Your task to perform on an android device: Show me productivity apps on the Play Store Image 0: 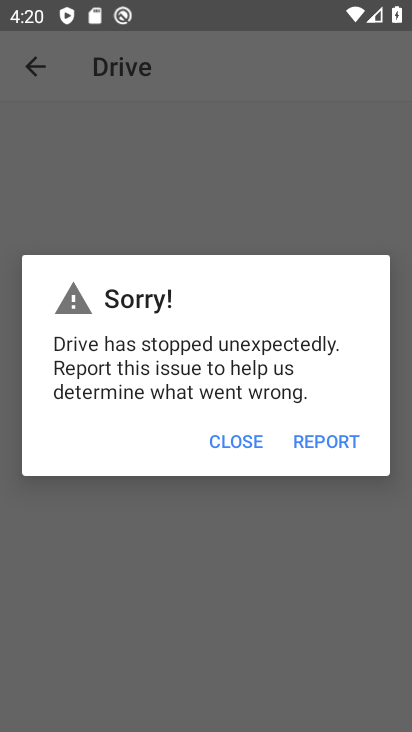
Step 0: press home button
Your task to perform on an android device: Show me productivity apps on the Play Store Image 1: 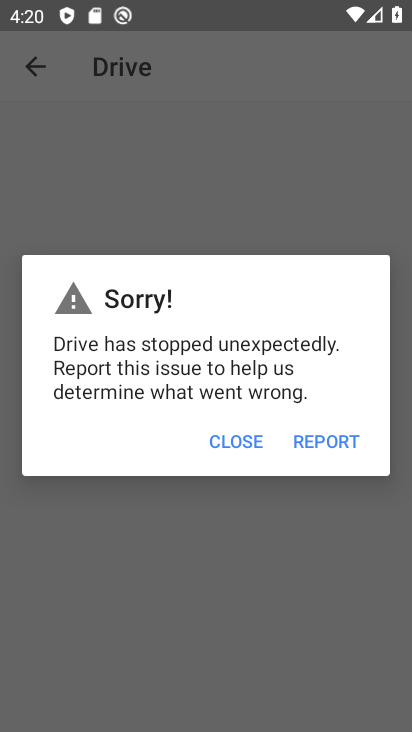
Step 1: press home button
Your task to perform on an android device: Show me productivity apps on the Play Store Image 2: 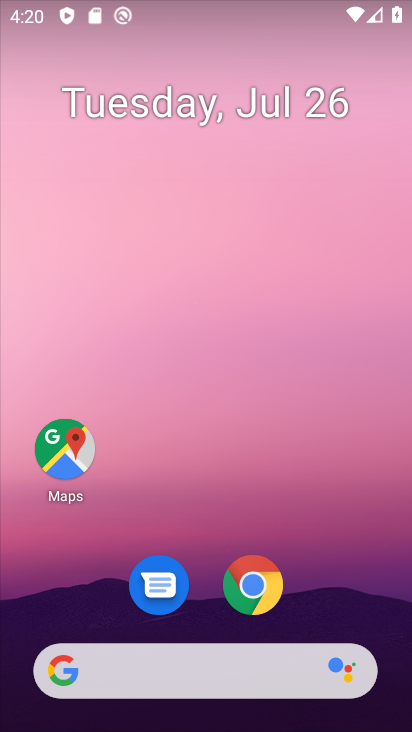
Step 2: drag from (322, 606) to (288, 28)
Your task to perform on an android device: Show me productivity apps on the Play Store Image 3: 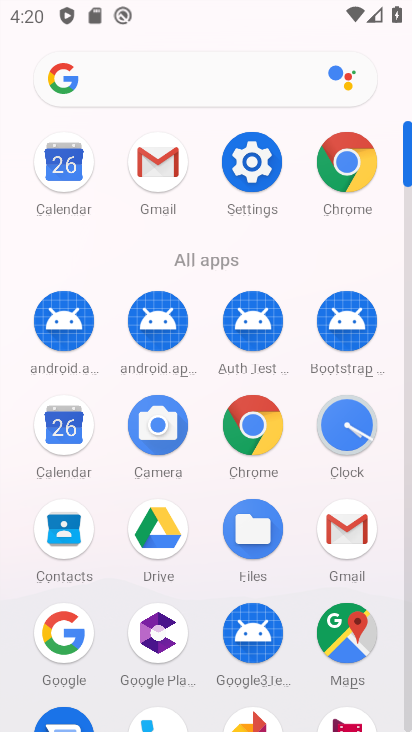
Step 3: drag from (198, 406) to (223, 190)
Your task to perform on an android device: Show me productivity apps on the Play Store Image 4: 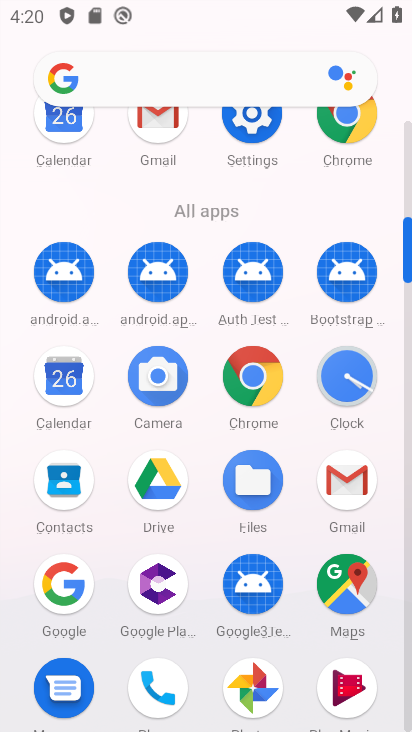
Step 4: drag from (210, 521) to (222, 205)
Your task to perform on an android device: Show me productivity apps on the Play Store Image 5: 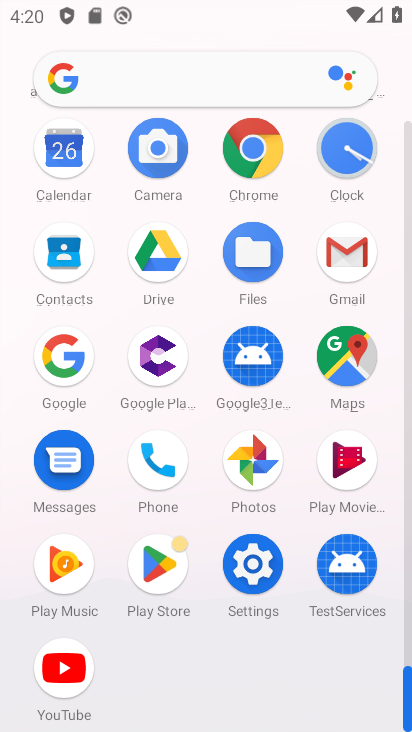
Step 5: click (177, 567)
Your task to perform on an android device: Show me productivity apps on the Play Store Image 6: 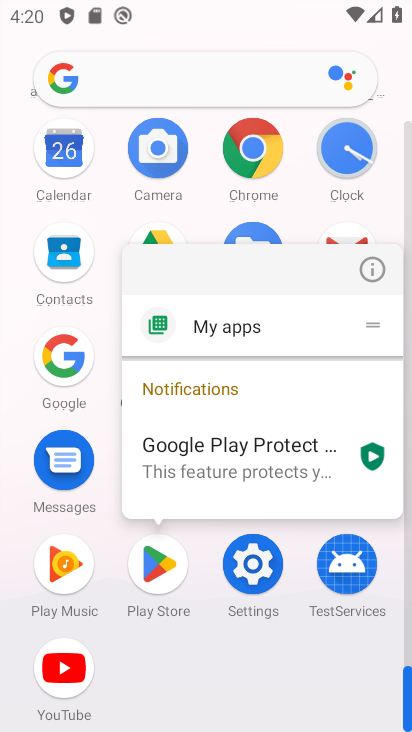
Step 6: click (175, 563)
Your task to perform on an android device: Show me productivity apps on the Play Store Image 7: 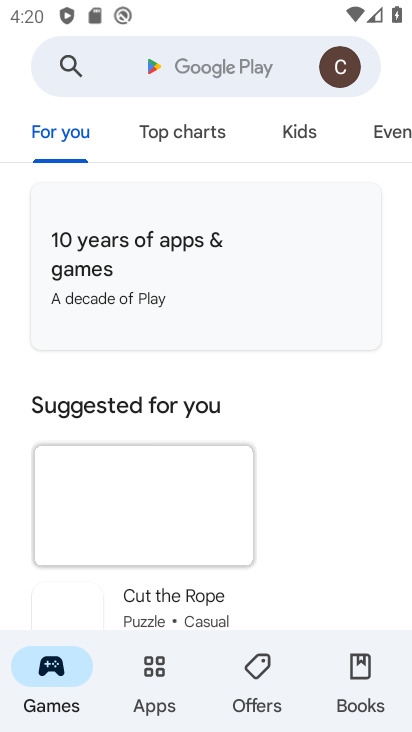
Step 7: click (165, 673)
Your task to perform on an android device: Show me productivity apps on the Play Store Image 8: 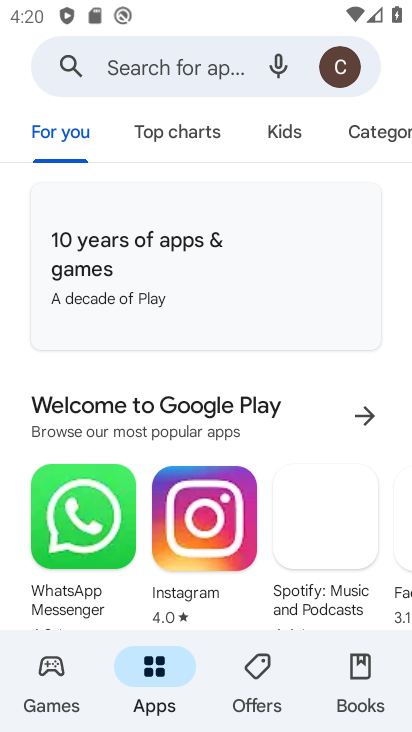
Step 8: click (387, 136)
Your task to perform on an android device: Show me productivity apps on the Play Store Image 9: 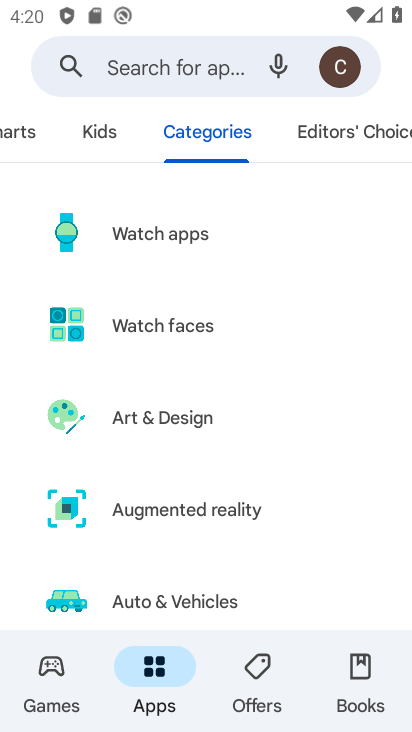
Step 9: drag from (301, 532) to (249, 119)
Your task to perform on an android device: Show me productivity apps on the Play Store Image 10: 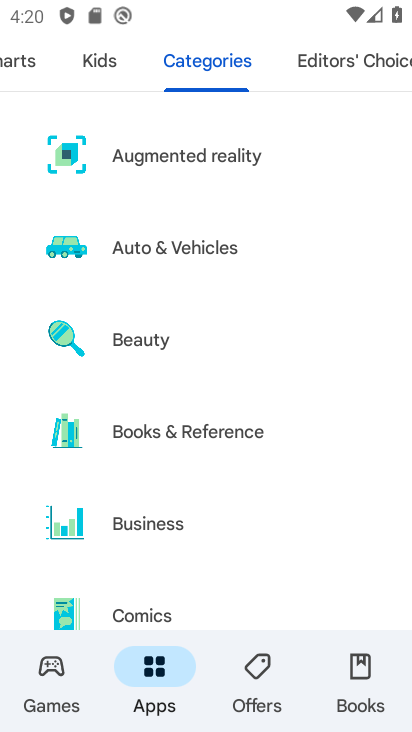
Step 10: drag from (241, 76) to (232, 6)
Your task to perform on an android device: Show me productivity apps on the Play Store Image 11: 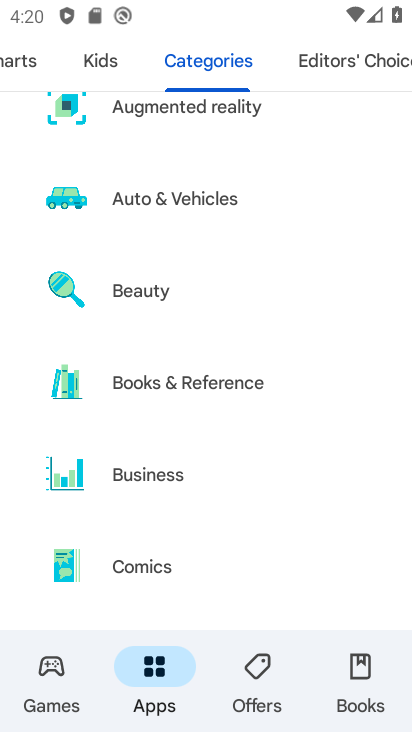
Step 11: drag from (271, 476) to (257, 0)
Your task to perform on an android device: Show me productivity apps on the Play Store Image 12: 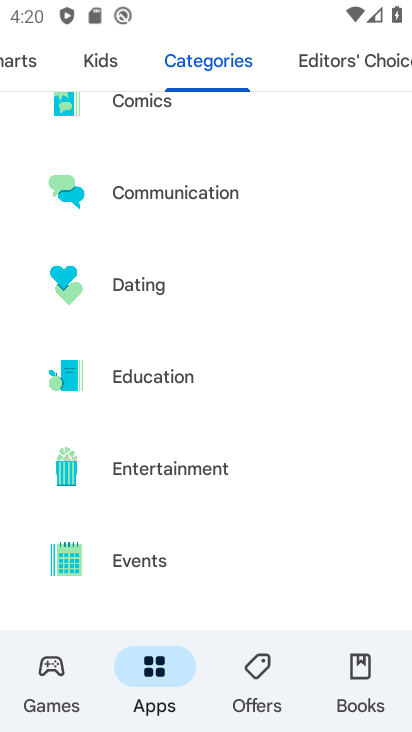
Step 12: drag from (268, 517) to (250, 74)
Your task to perform on an android device: Show me productivity apps on the Play Store Image 13: 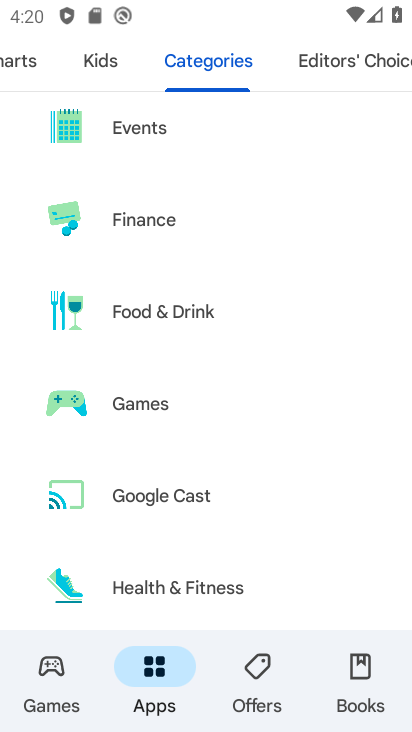
Step 13: drag from (211, 468) to (191, 231)
Your task to perform on an android device: Show me productivity apps on the Play Store Image 14: 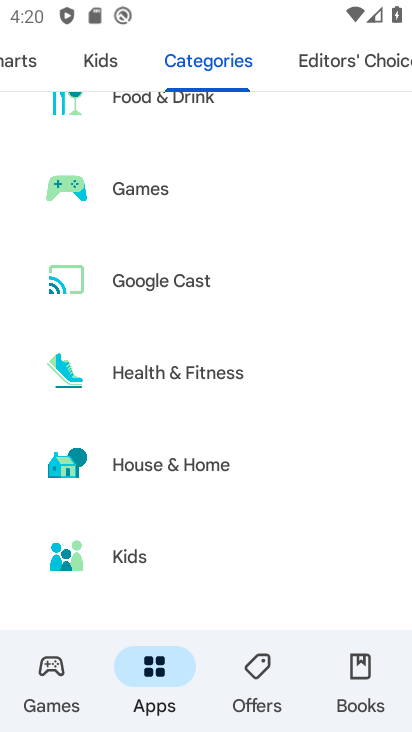
Step 14: drag from (189, 188) to (189, 138)
Your task to perform on an android device: Show me productivity apps on the Play Store Image 15: 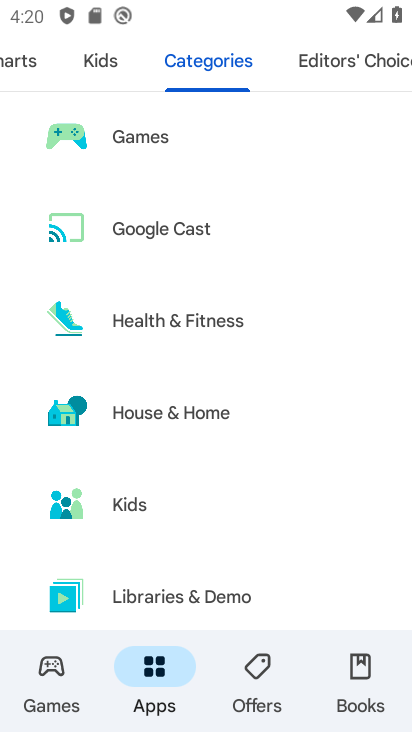
Step 15: drag from (246, 449) to (226, 114)
Your task to perform on an android device: Show me productivity apps on the Play Store Image 16: 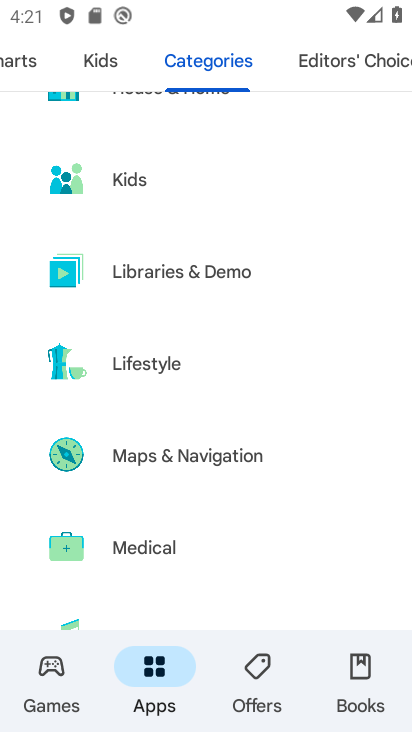
Step 16: drag from (254, 511) to (222, 132)
Your task to perform on an android device: Show me productivity apps on the Play Store Image 17: 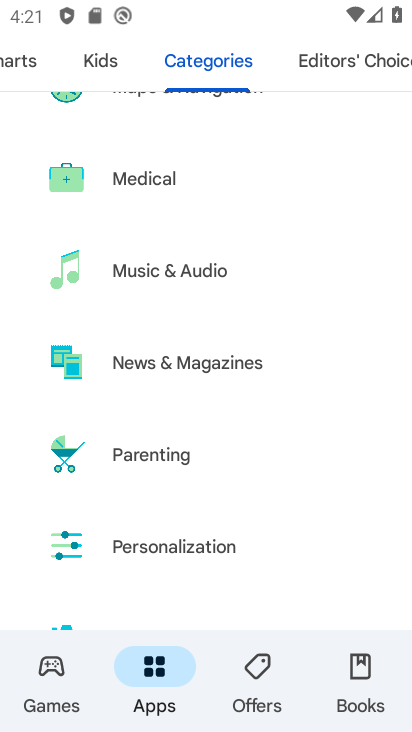
Step 17: drag from (248, 437) to (219, 127)
Your task to perform on an android device: Show me productivity apps on the Play Store Image 18: 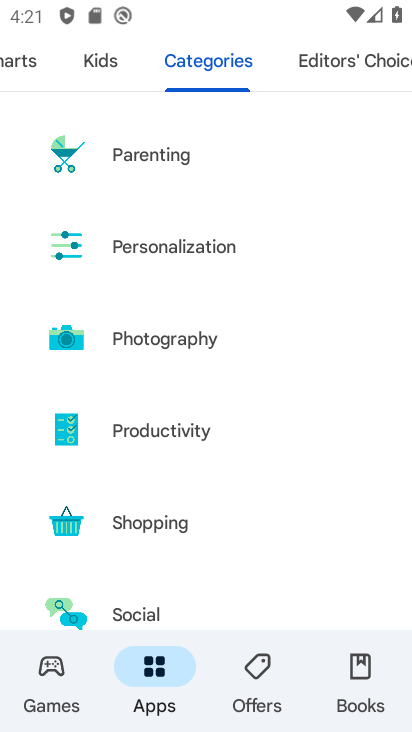
Step 18: click (185, 437)
Your task to perform on an android device: Show me productivity apps on the Play Store Image 19: 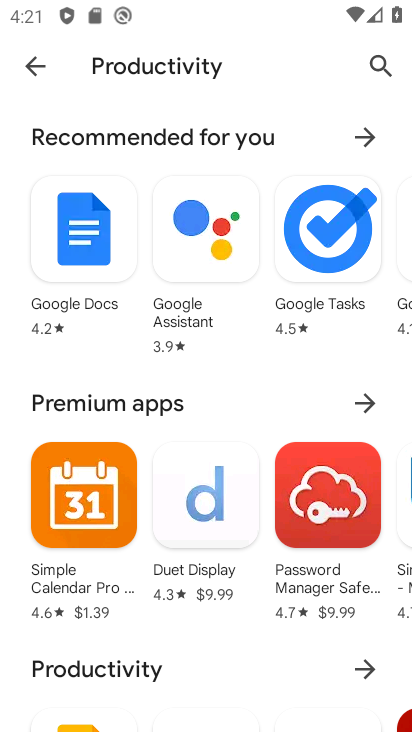
Step 19: task complete